Your task to perform on an android device: What's on my calendar tomorrow? Image 0: 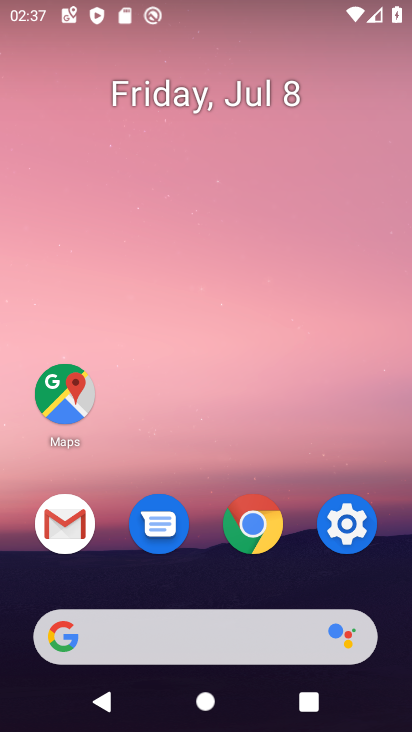
Step 0: drag from (285, 659) to (267, 318)
Your task to perform on an android device: What's on my calendar tomorrow? Image 1: 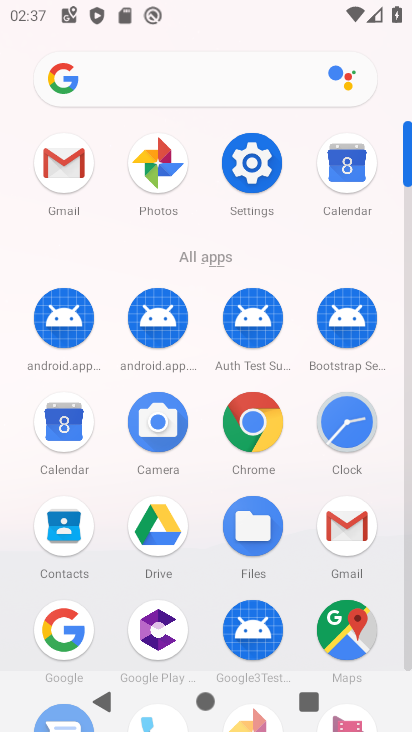
Step 1: click (56, 447)
Your task to perform on an android device: What's on my calendar tomorrow? Image 2: 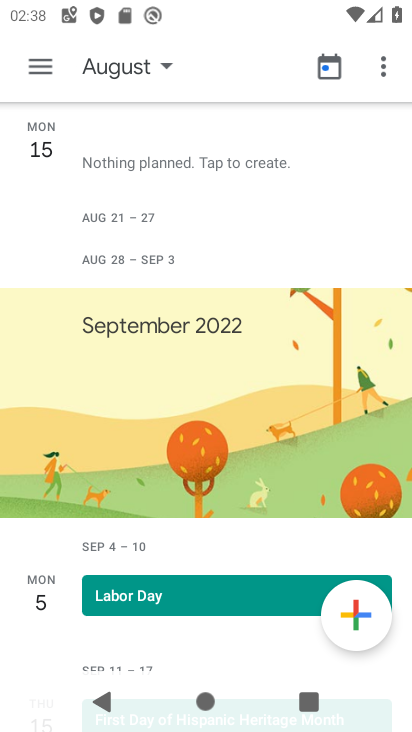
Step 2: click (51, 71)
Your task to perform on an android device: What's on my calendar tomorrow? Image 3: 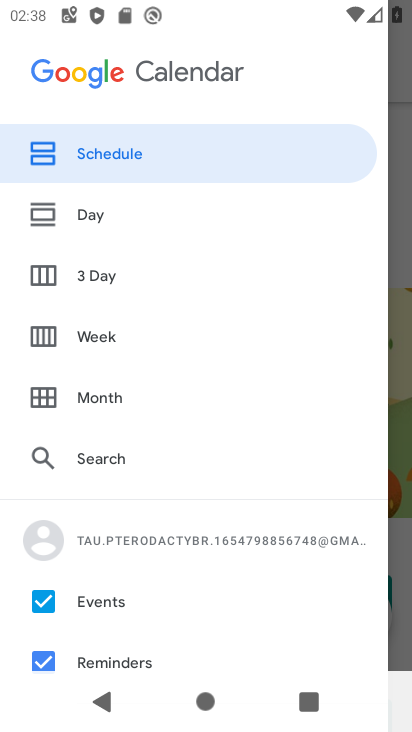
Step 3: click (101, 399)
Your task to perform on an android device: What's on my calendar tomorrow? Image 4: 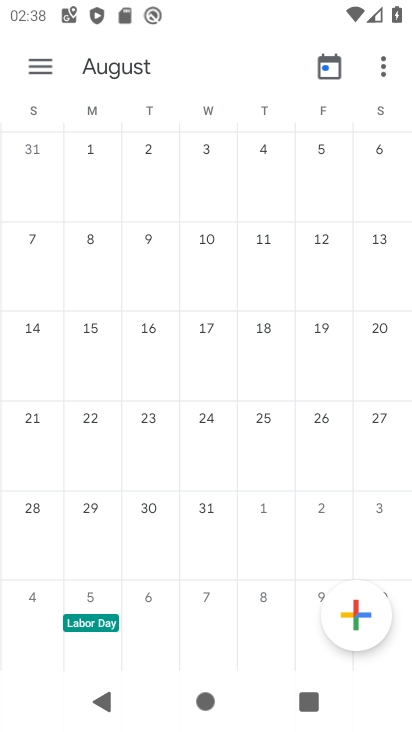
Step 4: drag from (346, 377) to (404, 313)
Your task to perform on an android device: What's on my calendar tomorrow? Image 5: 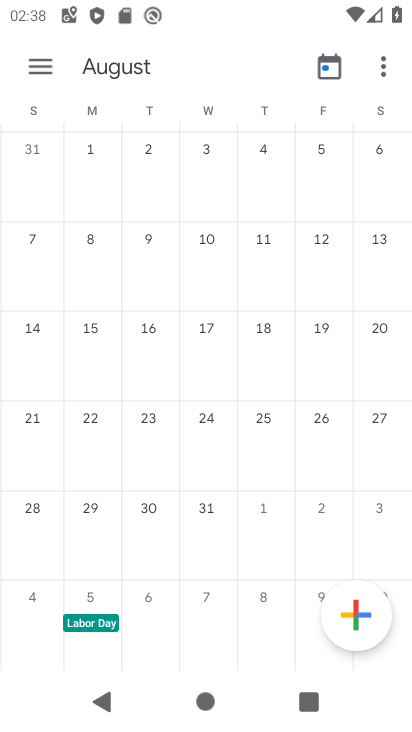
Step 5: drag from (63, 302) to (409, 223)
Your task to perform on an android device: What's on my calendar tomorrow? Image 6: 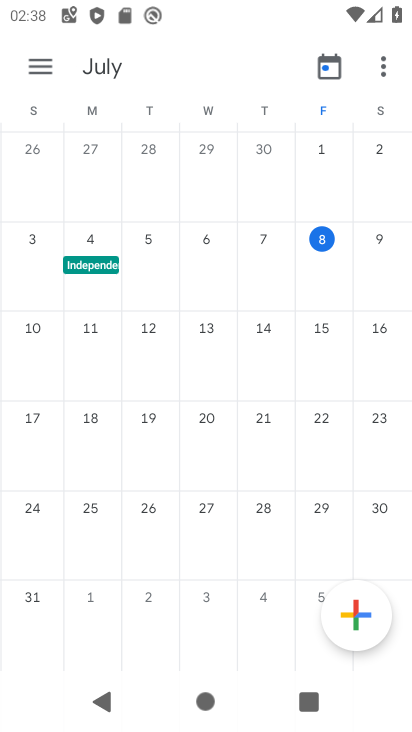
Step 6: click (362, 268)
Your task to perform on an android device: What's on my calendar tomorrow? Image 7: 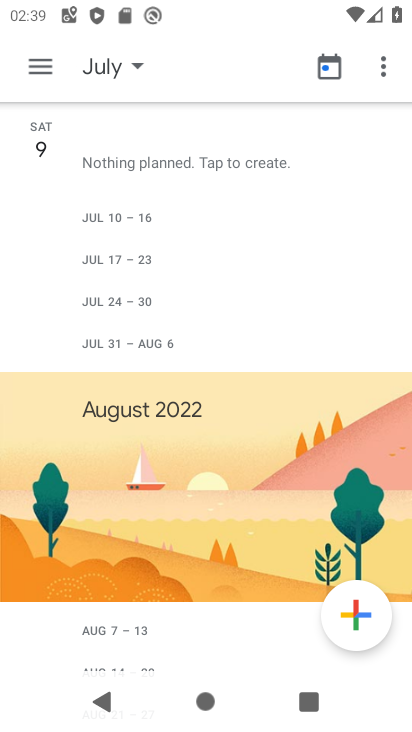
Step 7: task complete